Your task to perform on an android device: Open calendar and show me the fourth week of next month Image 0: 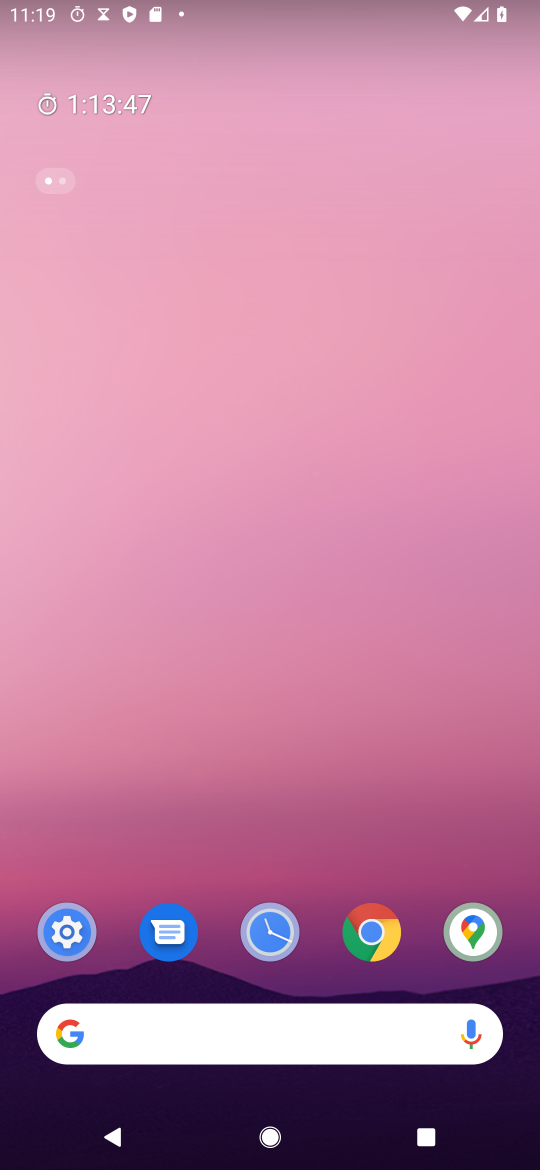
Step 0: drag from (427, 841) to (496, 20)
Your task to perform on an android device: Open calendar and show me the fourth week of next month Image 1: 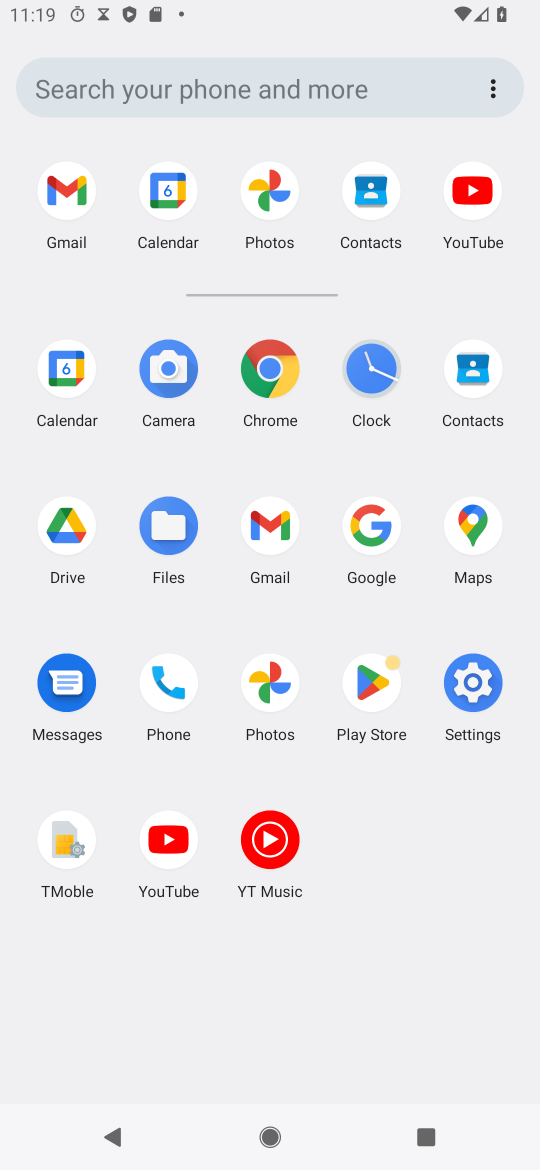
Step 1: click (66, 381)
Your task to perform on an android device: Open calendar and show me the fourth week of next month Image 2: 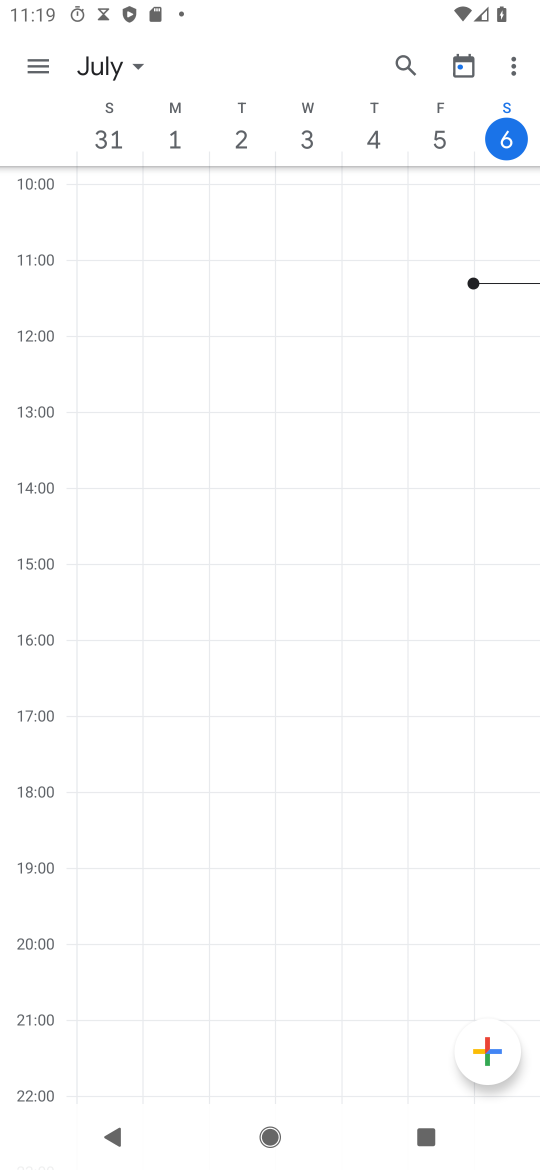
Step 2: click (108, 69)
Your task to perform on an android device: Open calendar and show me the fourth week of next month Image 3: 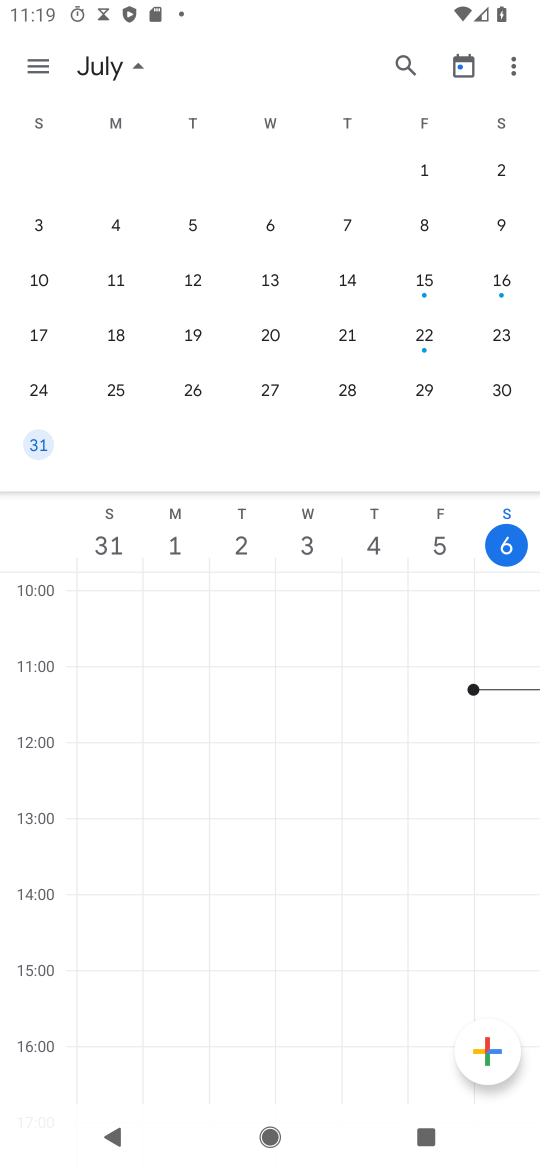
Step 3: drag from (486, 396) to (72, 357)
Your task to perform on an android device: Open calendar and show me the fourth week of next month Image 4: 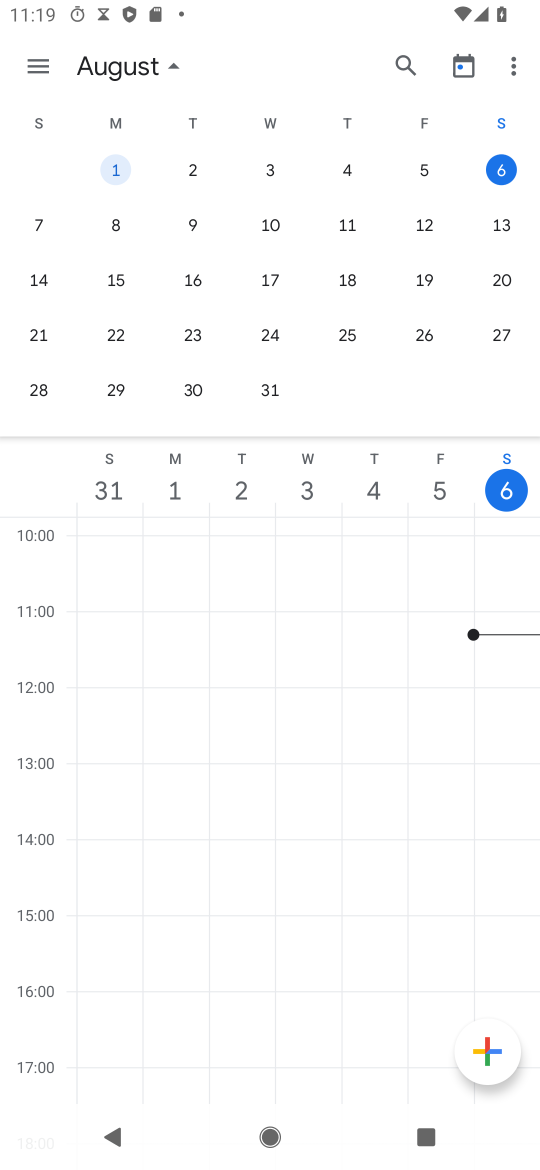
Step 4: drag from (495, 290) to (35, 267)
Your task to perform on an android device: Open calendar and show me the fourth week of next month Image 5: 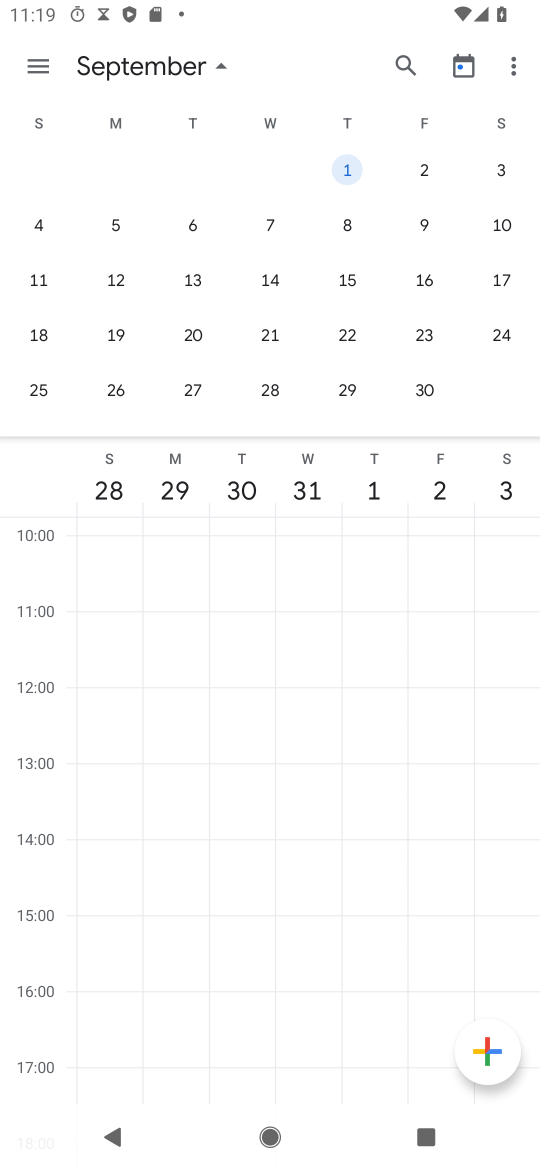
Step 5: click (347, 390)
Your task to perform on an android device: Open calendar and show me the fourth week of next month Image 6: 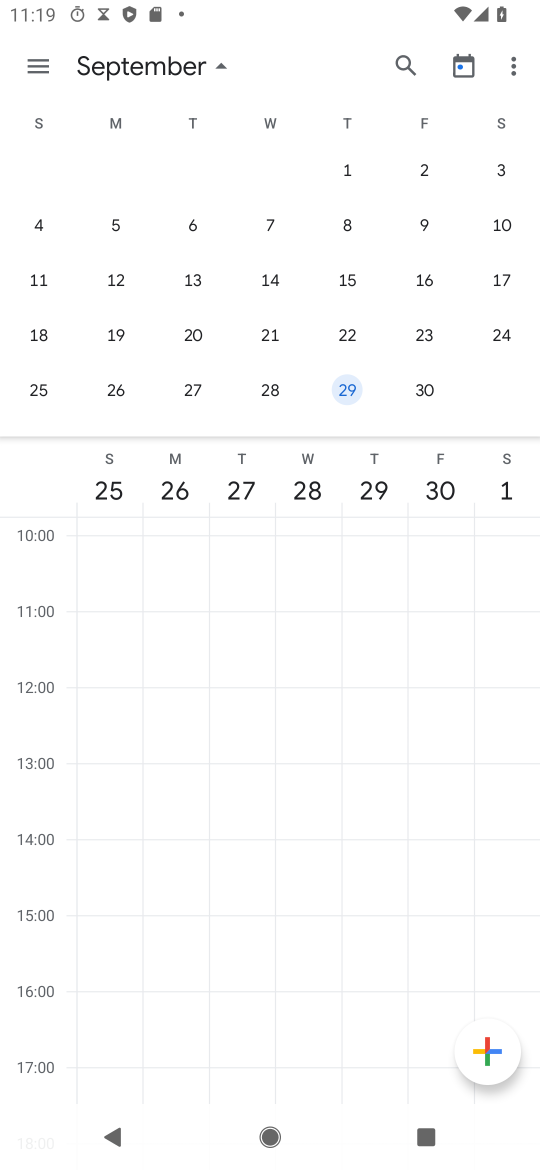
Step 6: task complete